Your task to perform on an android device: Open ESPN.com Image 0: 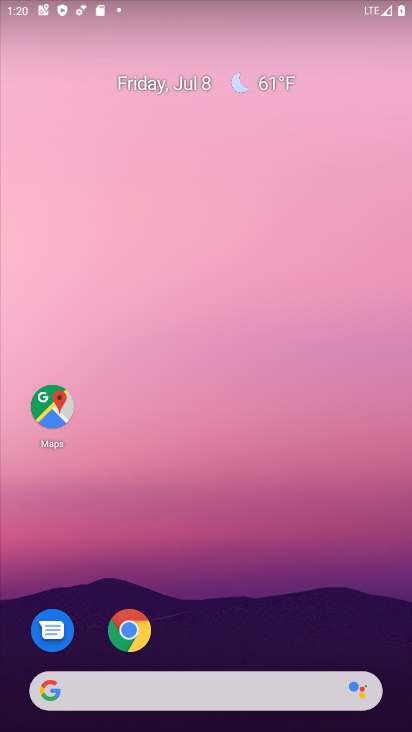
Step 0: drag from (400, 675) to (276, 193)
Your task to perform on an android device: Open ESPN.com Image 1: 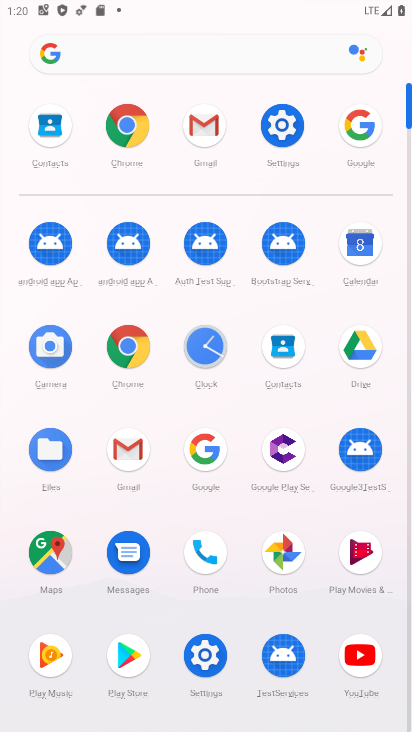
Step 1: click (196, 467)
Your task to perform on an android device: Open ESPN.com Image 2: 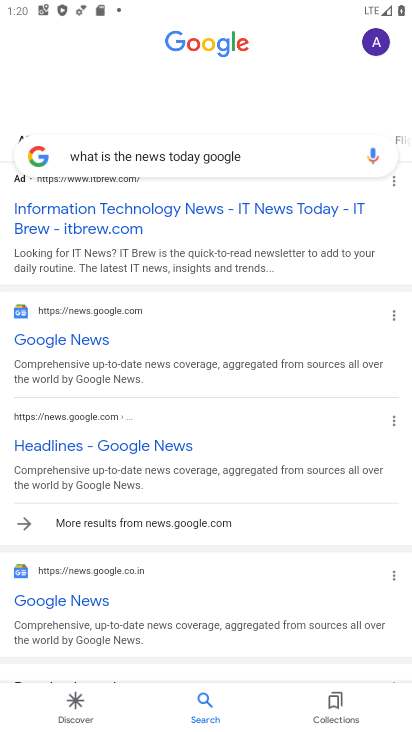
Step 2: press back button
Your task to perform on an android device: Open ESPN.com Image 3: 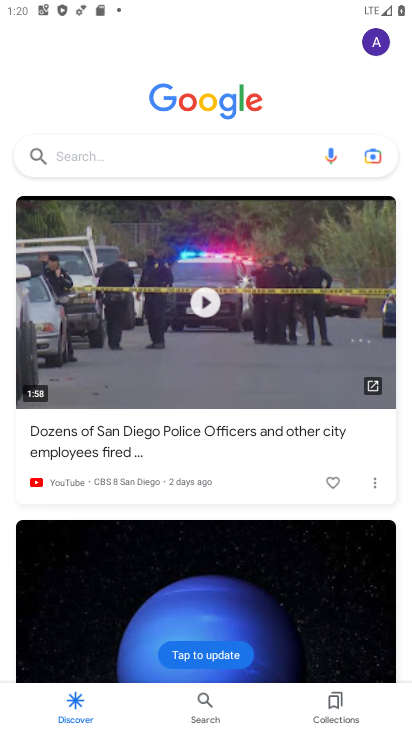
Step 3: click (120, 154)
Your task to perform on an android device: Open ESPN.com Image 4: 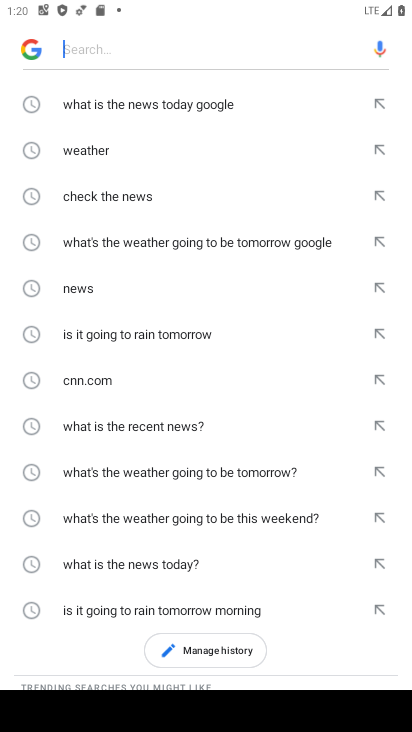
Step 4: type "ESPN.com"
Your task to perform on an android device: Open ESPN.com Image 5: 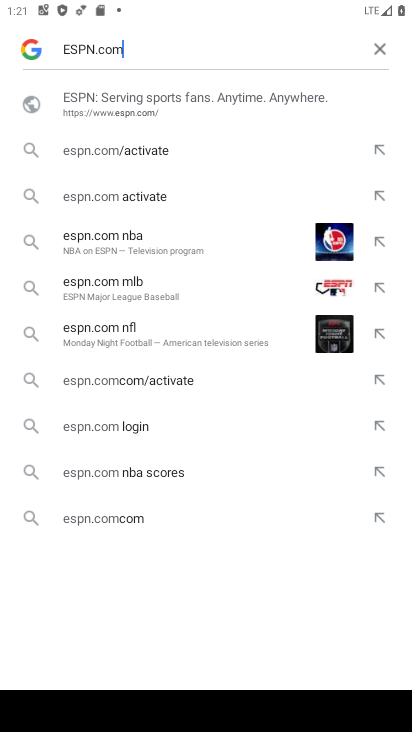
Step 5: click (159, 109)
Your task to perform on an android device: Open ESPN.com Image 6: 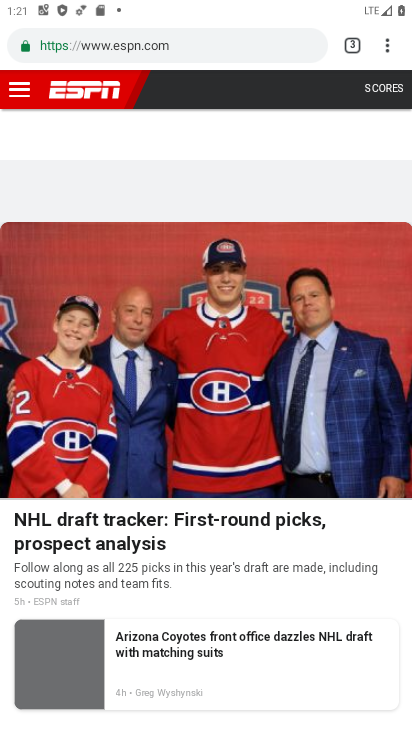
Step 6: task complete